Your task to perform on an android device: add a contact Image 0: 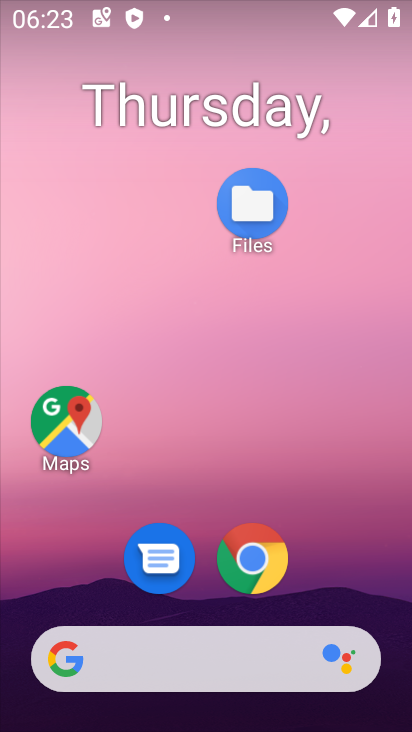
Step 0: drag from (308, 578) to (317, 105)
Your task to perform on an android device: add a contact Image 1: 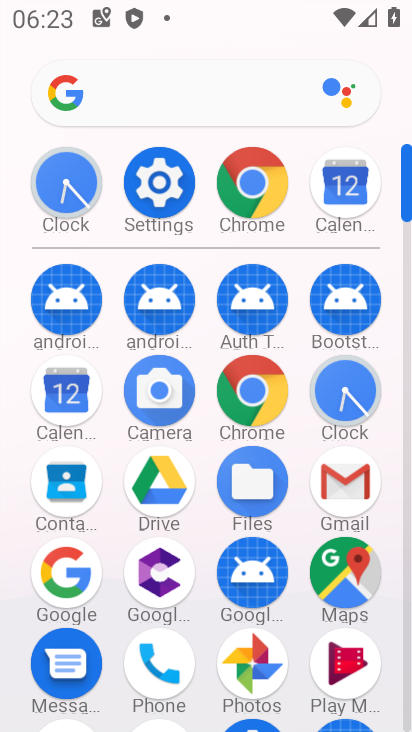
Step 1: drag from (293, 412) to (264, 67)
Your task to perform on an android device: add a contact Image 2: 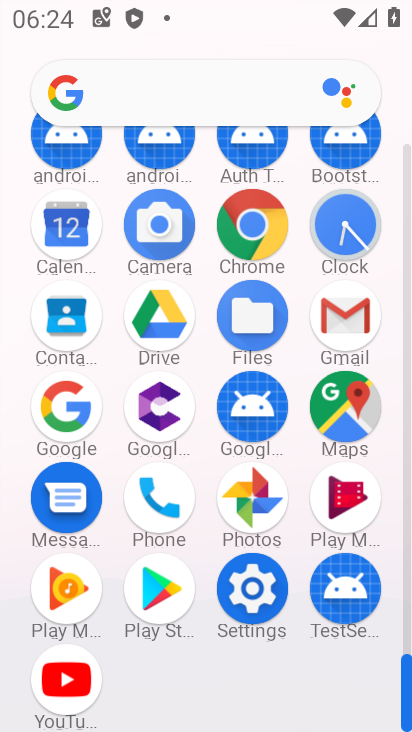
Step 2: drag from (200, 489) to (240, 69)
Your task to perform on an android device: add a contact Image 3: 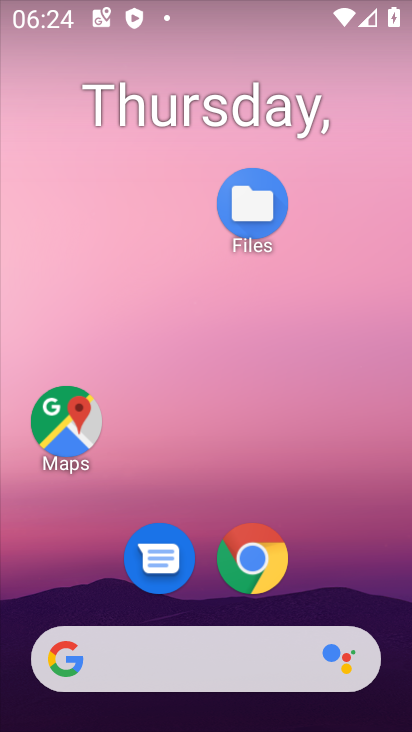
Step 3: click (292, 186)
Your task to perform on an android device: add a contact Image 4: 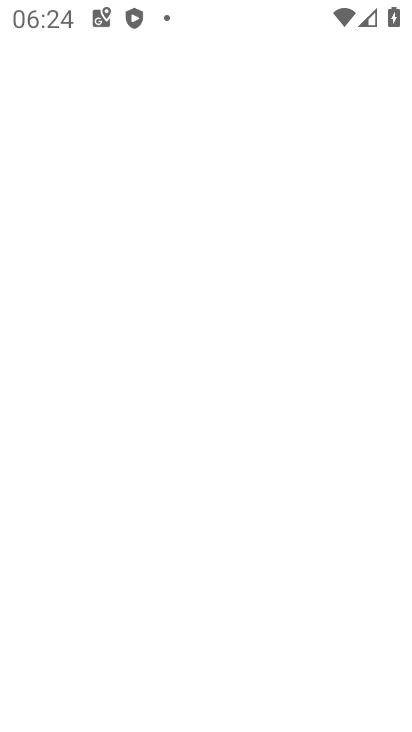
Step 4: click (60, 502)
Your task to perform on an android device: add a contact Image 5: 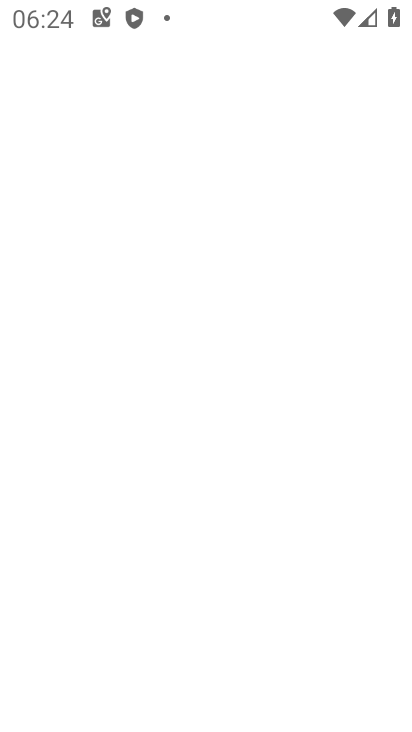
Step 5: click (67, 496)
Your task to perform on an android device: add a contact Image 6: 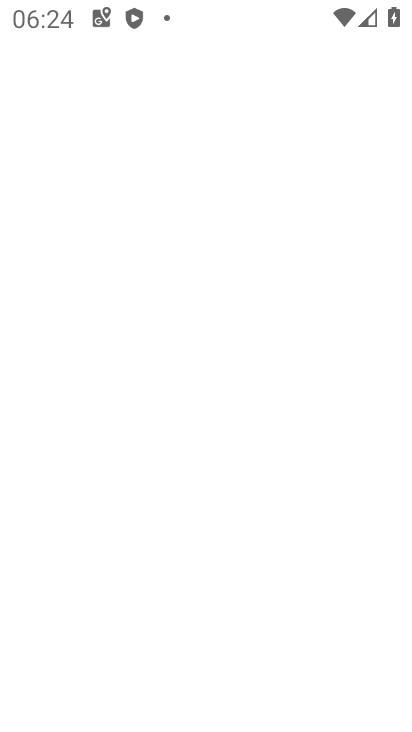
Step 6: click (69, 495)
Your task to perform on an android device: add a contact Image 7: 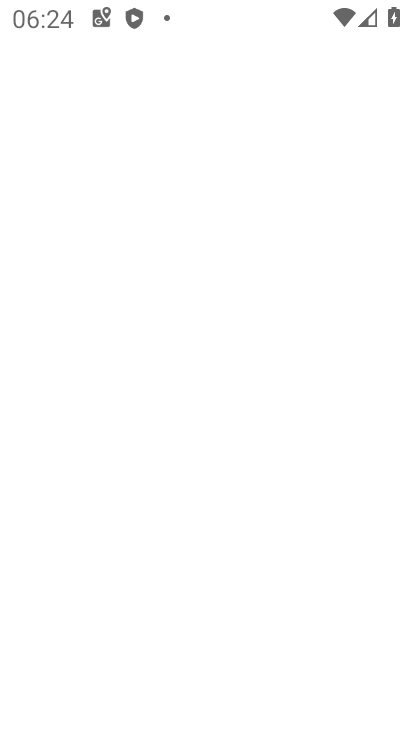
Step 7: click (71, 341)
Your task to perform on an android device: add a contact Image 8: 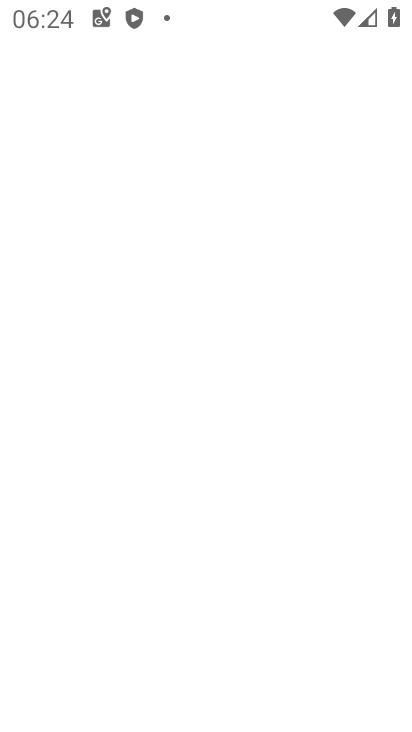
Step 8: drag from (288, 537) to (305, 275)
Your task to perform on an android device: add a contact Image 9: 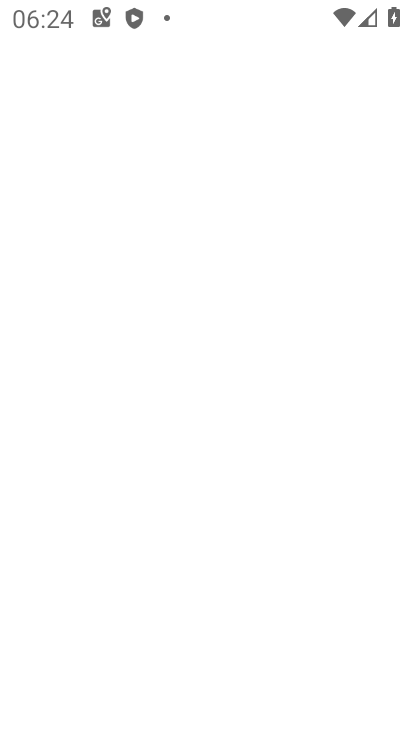
Step 9: press home button
Your task to perform on an android device: add a contact Image 10: 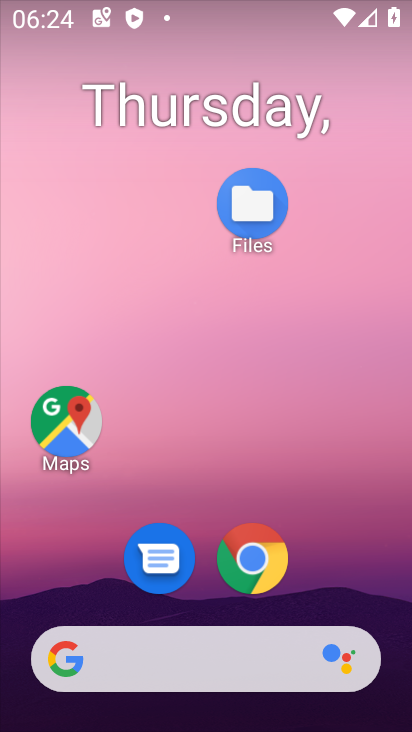
Step 10: drag from (319, 590) to (274, 2)
Your task to perform on an android device: add a contact Image 11: 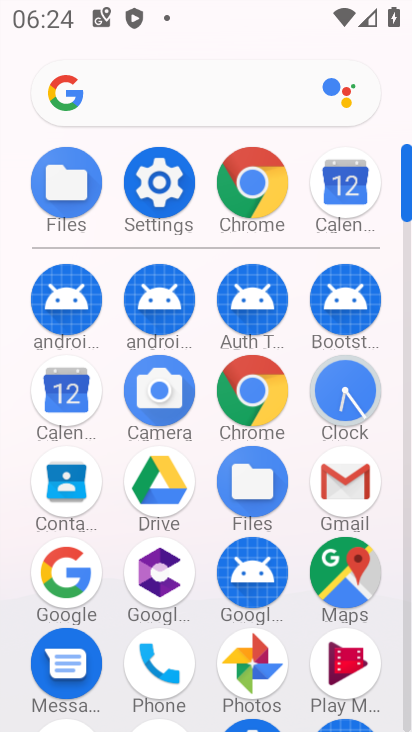
Step 11: click (69, 485)
Your task to perform on an android device: add a contact Image 12: 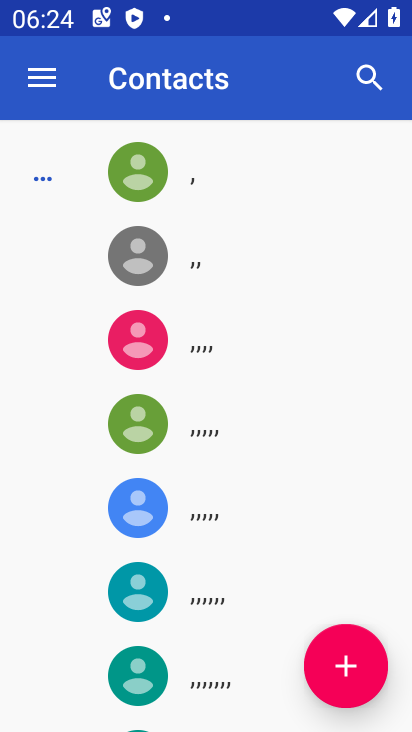
Step 12: click (353, 677)
Your task to perform on an android device: add a contact Image 13: 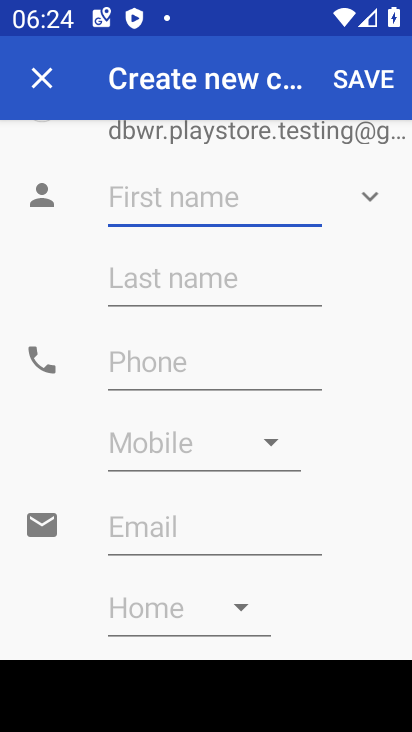
Step 13: click (184, 199)
Your task to perform on an android device: add a contact Image 14: 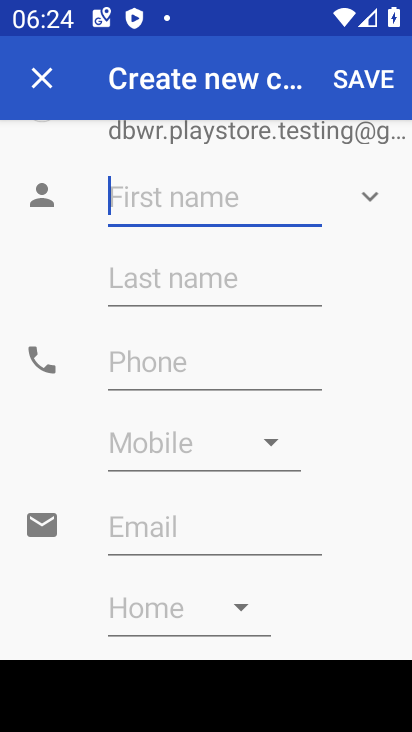
Step 14: type "Moora"
Your task to perform on an android device: add a contact Image 15: 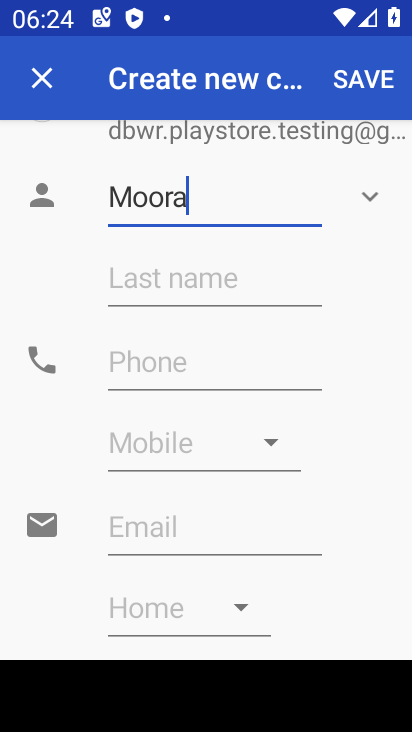
Step 15: click (193, 302)
Your task to perform on an android device: add a contact Image 16: 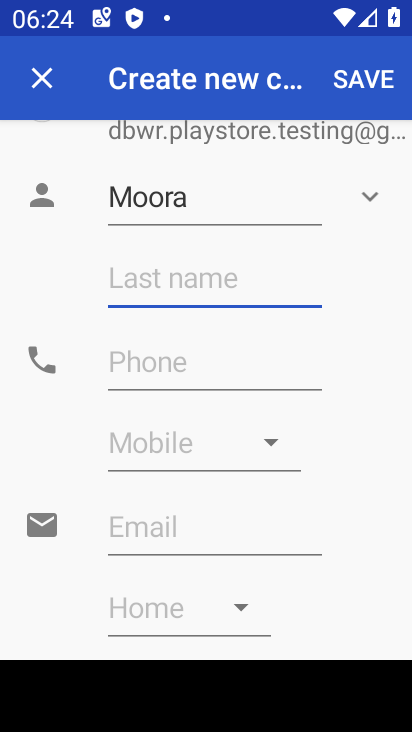
Step 16: click (176, 295)
Your task to perform on an android device: add a contact Image 17: 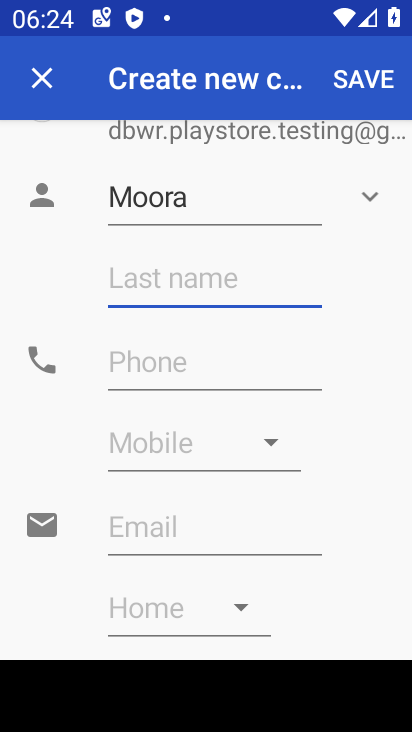
Step 17: type "Dangi"
Your task to perform on an android device: add a contact Image 18: 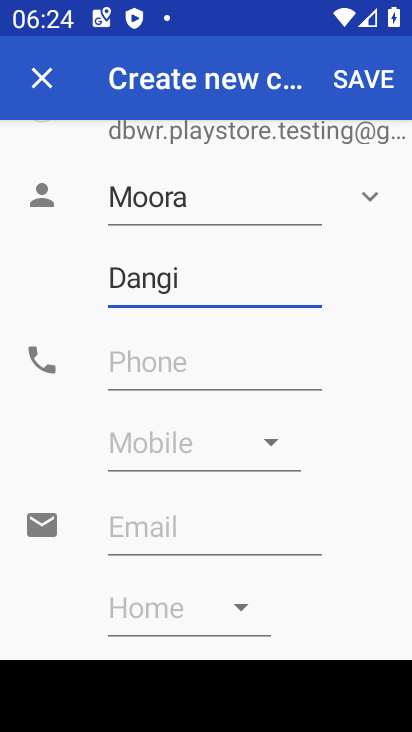
Step 18: click (155, 369)
Your task to perform on an android device: add a contact Image 19: 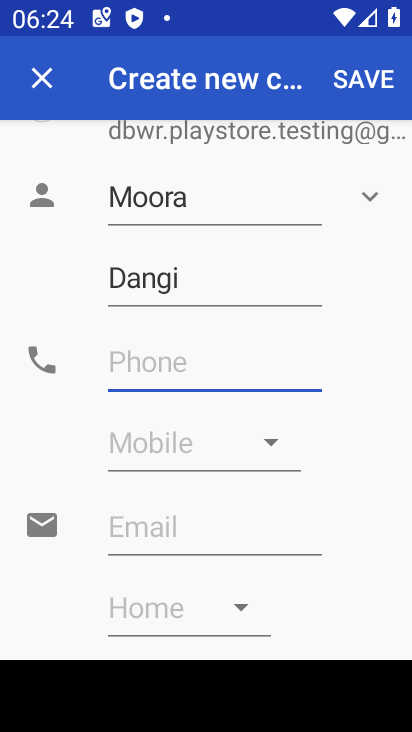
Step 19: click (155, 369)
Your task to perform on an android device: add a contact Image 20: 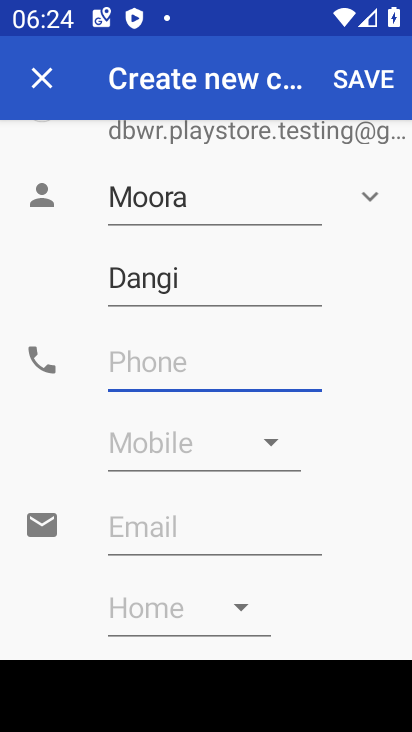
Step 20: type "09898987878"
Your task to perform on an android device: add a contact Image 21: 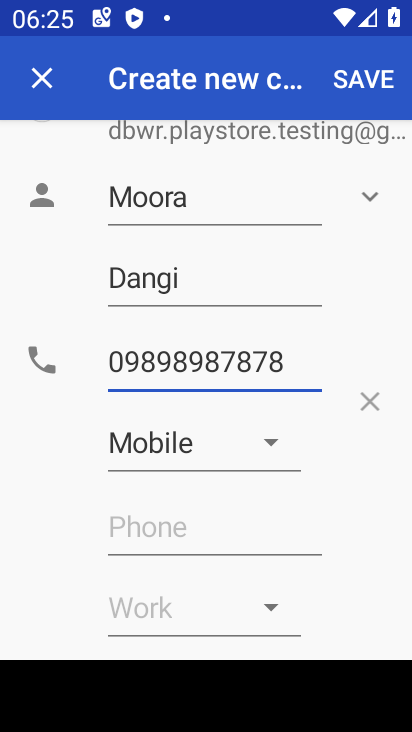
Step 21: click (372, 76)
Your task to perform on an android device: add a contact Image 22: 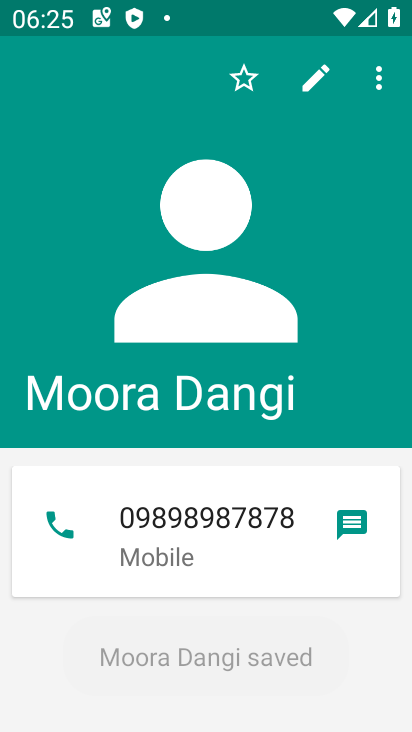
Step 22: task complete